Your task to perform on an android device: check battery use Image 0: 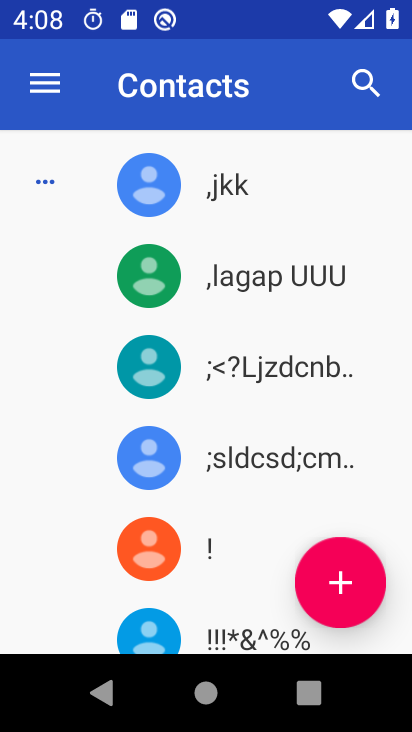
Step 0: press home button
Your task to perform on an android device: check battery use Image 1: 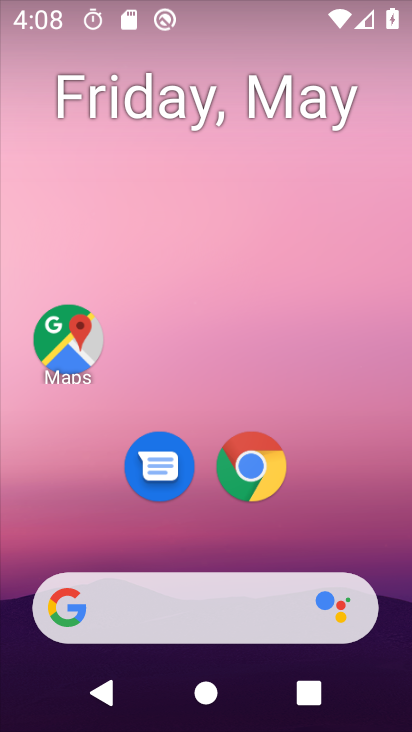
Step 1: drag from (390, 615) to (347, 143)
Your task to perform on an android device: check battery use Image 2: 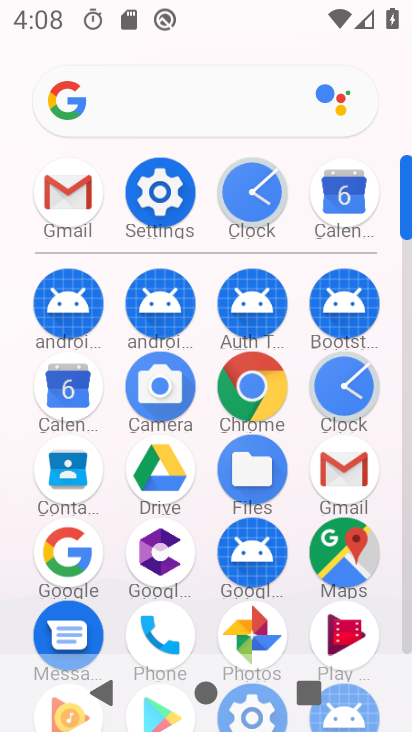
Step 2: click (170, 197)
Your task to perform on an android device: check battery use Image 3: 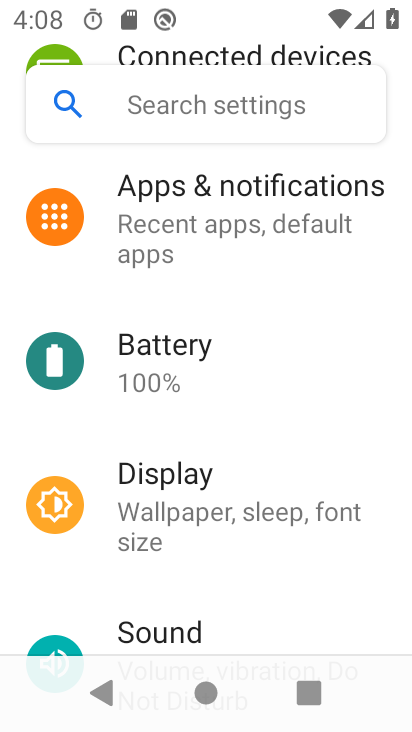
Step 3: click (174, 357)
Your task to perform on an android device: check battery use Image 4: 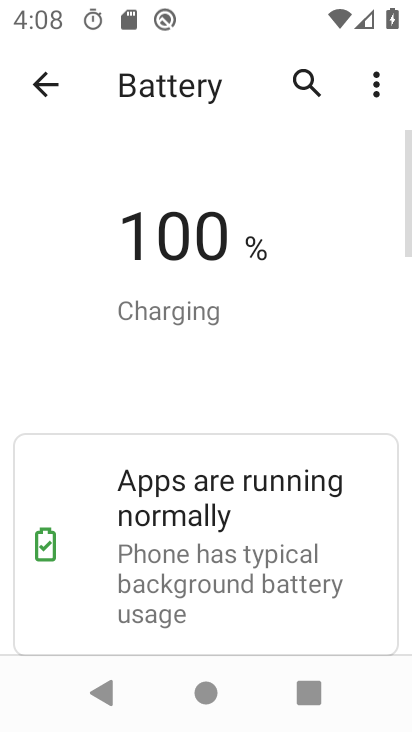
Step 4: click (379, 74)
Your task to perform on an android device: check battery use Image 5: 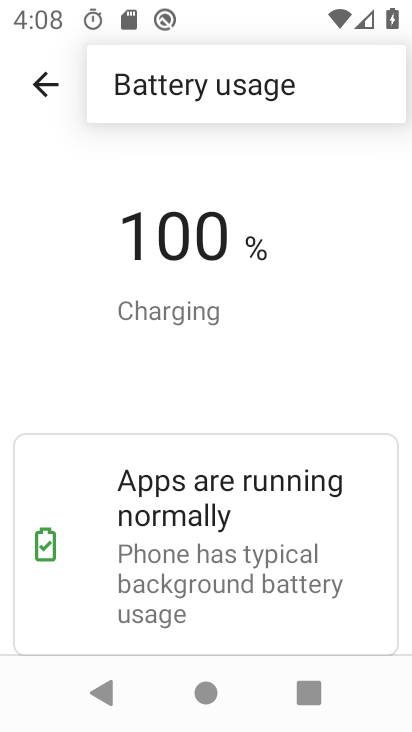
Step 5: click (287, 87)
Your task to perform on an android device: check battery use Image 6: 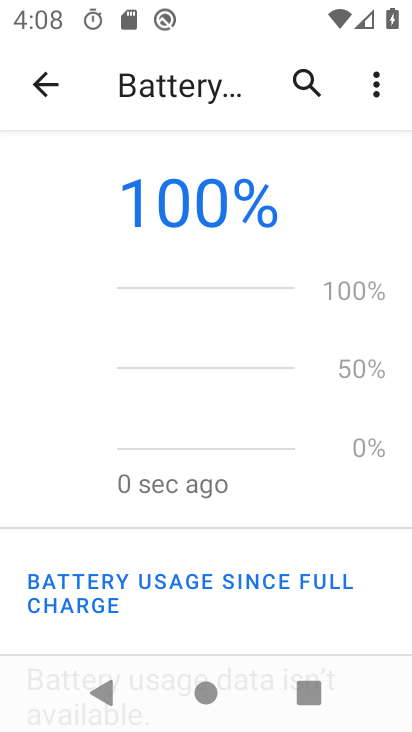
Step 6: task complete